Your task to perform on an android device: Toggle the flashlight Image 0: 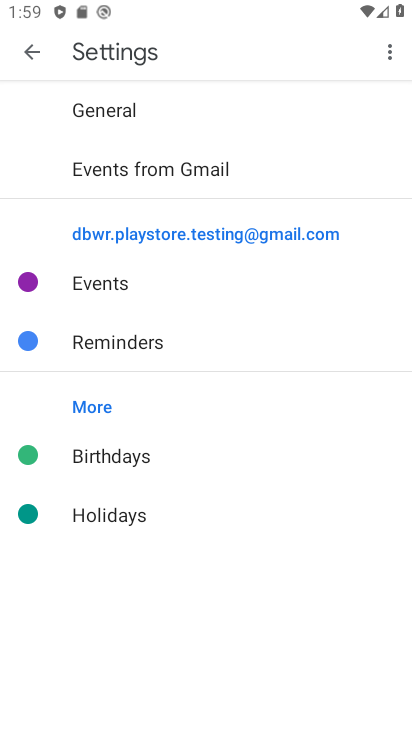
Step 0: press home button
Your task to perform on an android device: Toggle the flashlight Image 1: 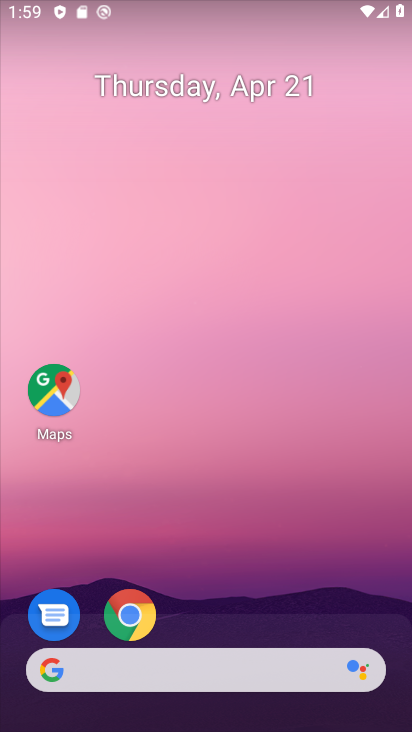
Step 1: click (294, 23)
Your task to perform on an android device: Toggle the flashlight Image 2: 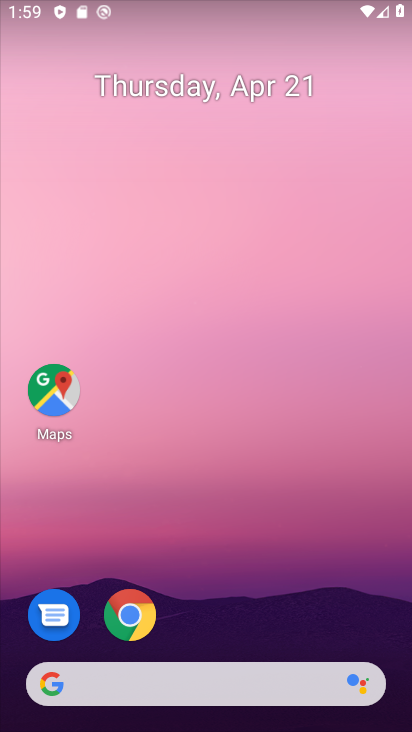
Step 2: drag from (236, 568) to (344, 36)
Your task to perform on an android device: Toggle the flashlight Image 3: 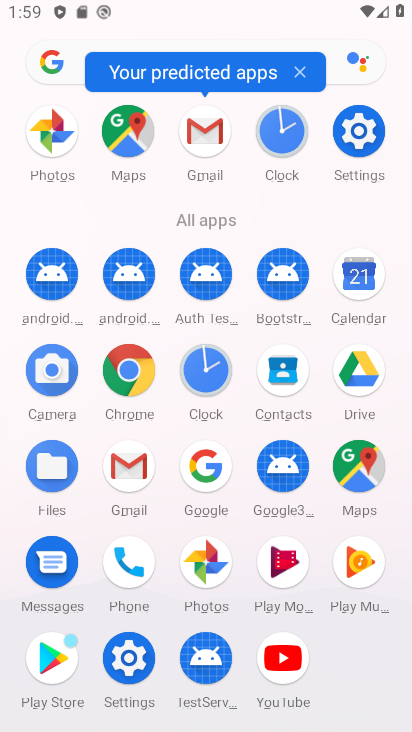
Step 3: click (368, 123)
Your task to perform on an android device: Toggle the flashlight Image 4: 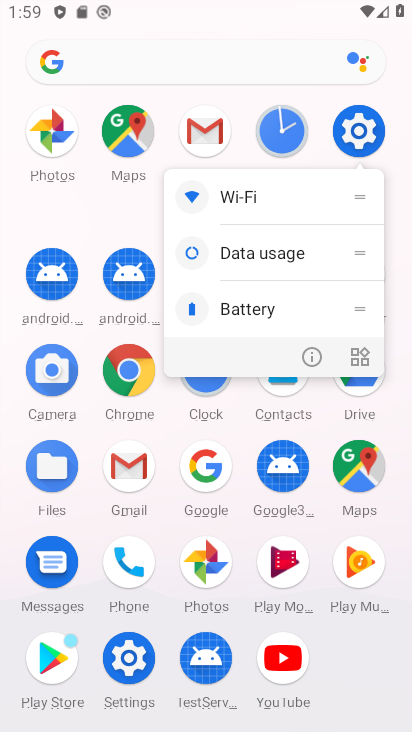
Step 4: click (346, 144)
Your task to perform on an android device: Toggle the flashlight Image 5: 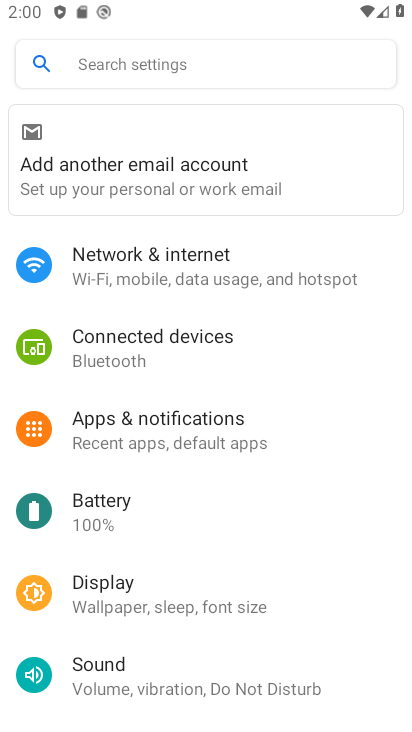
Step 5: click (191, 74)
Your task to perform on an android device: Toggle the flashlight Image 6: 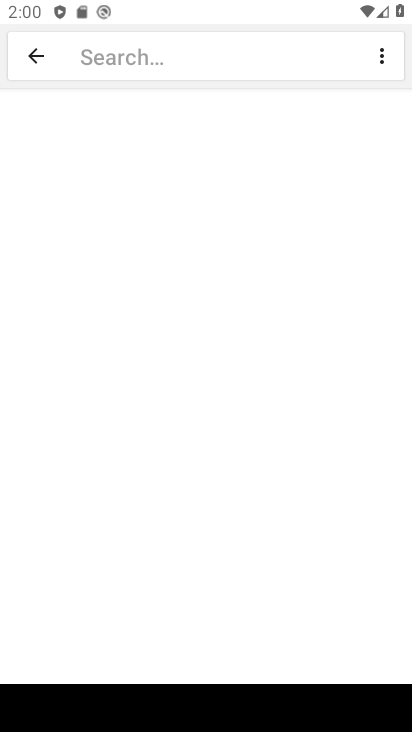
Step 6: type "flashlight"
Your task to perform on an android device: Toggle the flashlight Image 7: 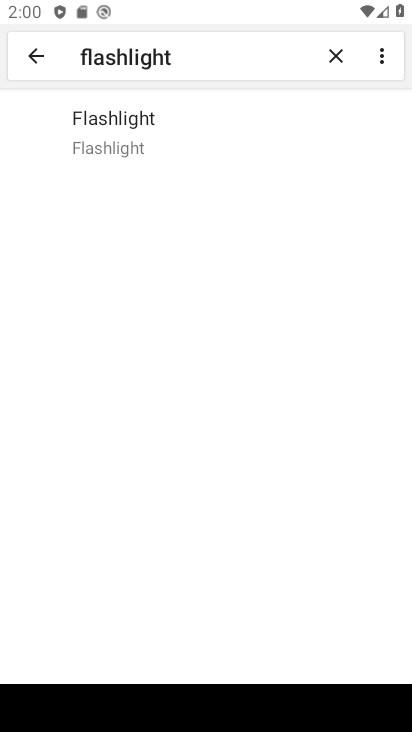
Step 7: click (103, 136)
Your task to perform on an android device: Toggle the flashlight Image 8: 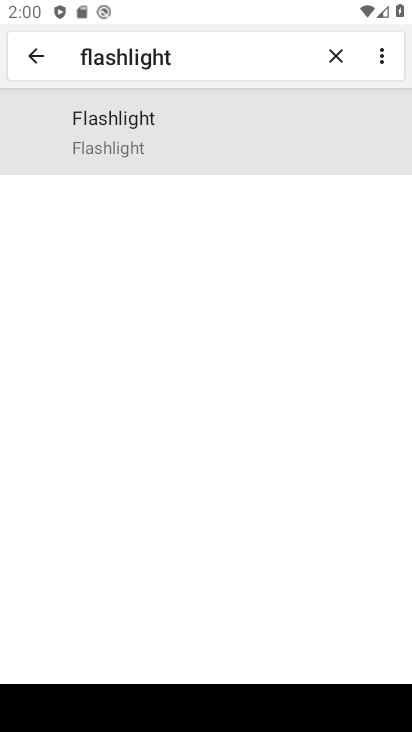
Step 8: task complete